Your task to perform on an android device: move a message to another label in the gmail app Image 0: 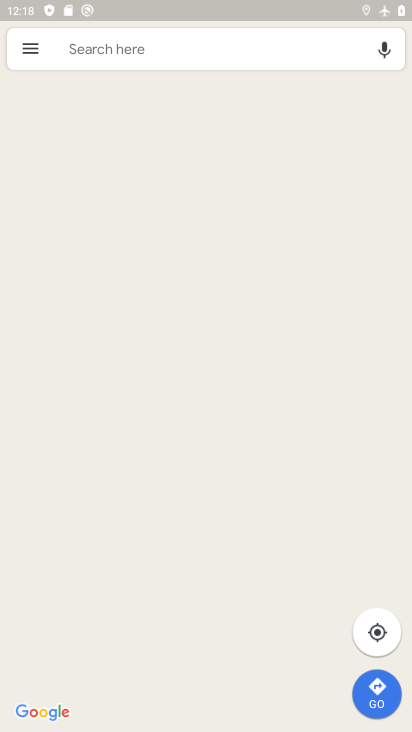
Step 0: press home button
Your task to perform on an android device: move a message to another label in the gmail app Image 1: 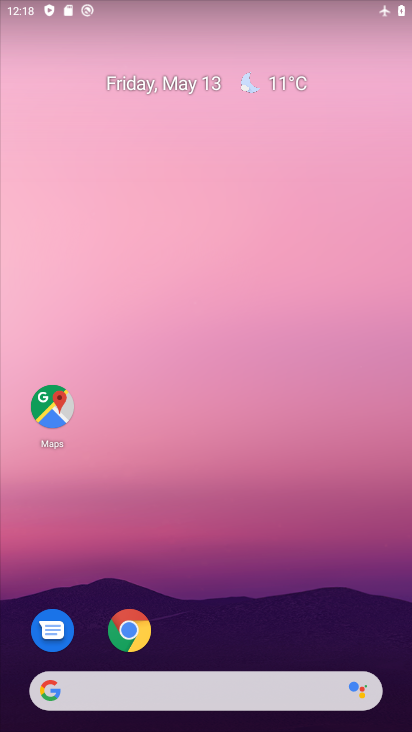
Step 1: drag from (313, 601) to (320, 4)
Your task to perform on an android device: move a message to another label in the gmail app Image 2: 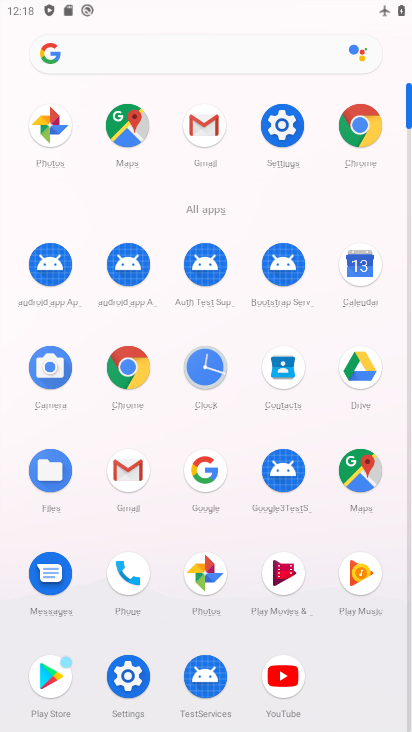
Step 2: click (202, 135)
Your task to perform on an android device: move a message to another label in the gmail app Image 3: 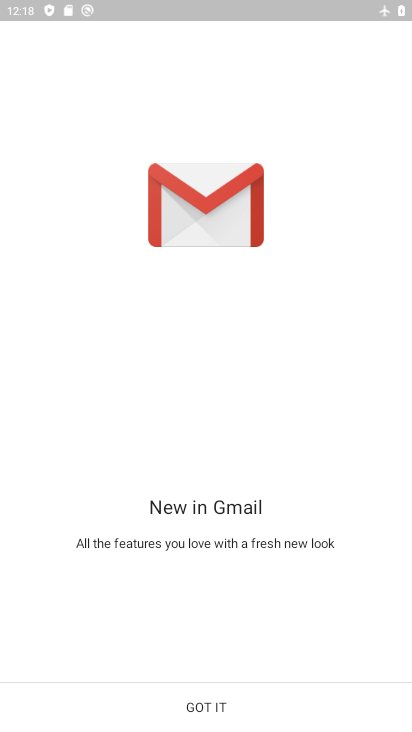
Step 3: click (205, 705)
Your task to perform on an android device: move a message to another label in the gmail app Image 4: 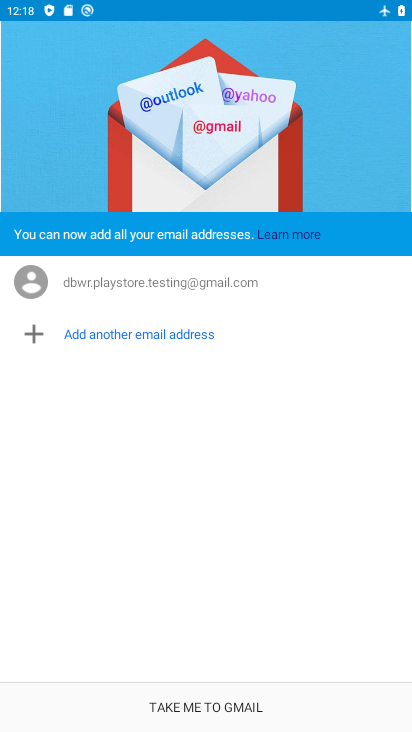
Step 4: click (205, 705)
Your task to perform on an android device: move a message to another label in the gmail app Image 5: 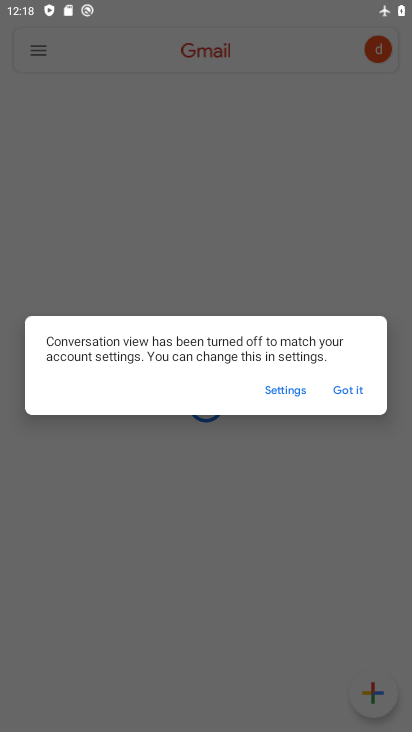
Step 5: click (352, 392)
Your task to perform on an android device: move a message to another label in the gmail app Image 6: 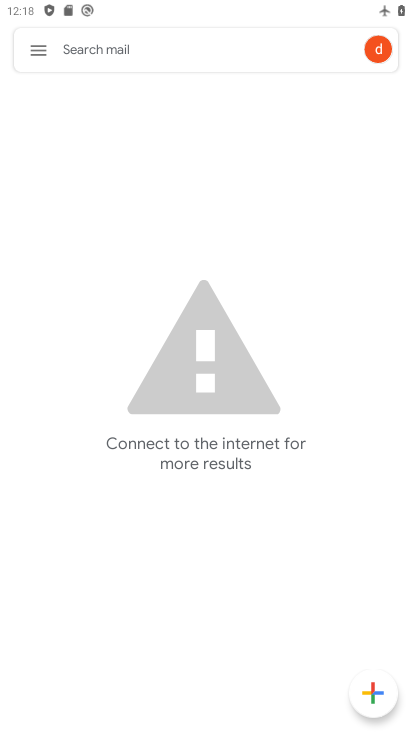
Step 6: click (38, 47)
Your task to perform on an android device: move a message to another label in the gmail app Image 7: 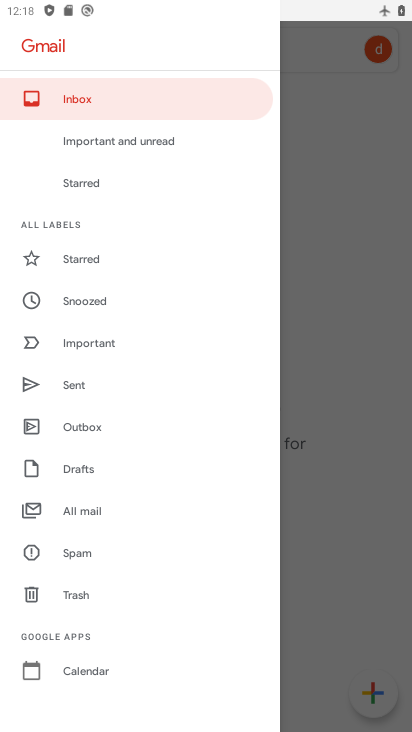
Step 7: click (84, 517)
Your task to perform on an android device: move a message to another label in the gmail app Image 8: 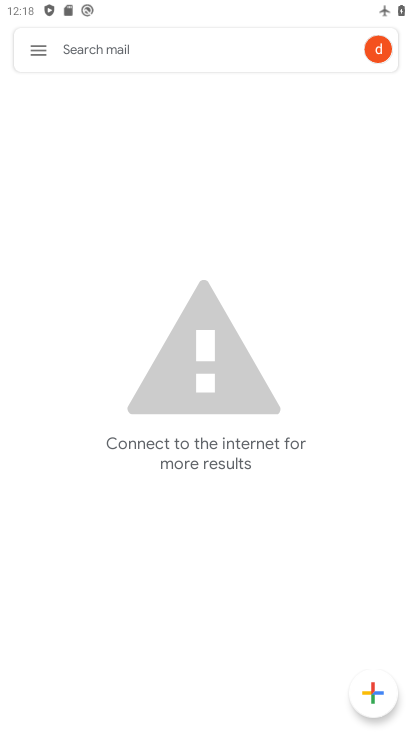
Step 8: task complete